Your task to perform on an android device: turn off location history Image 0: 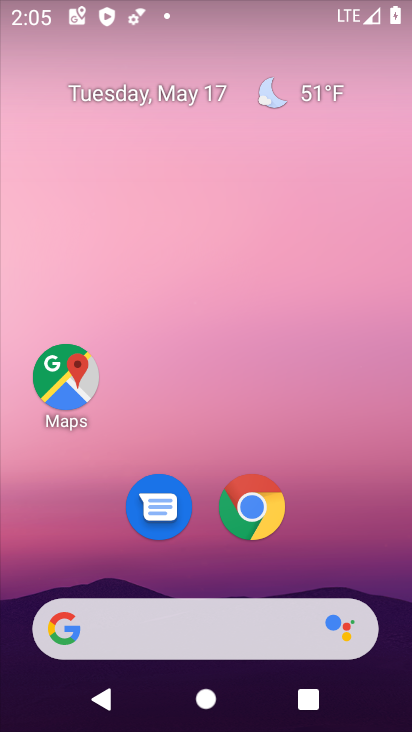
Step 0: drag from (306, 559) to (355, 26)
Your task to perform on an android device: turn off location history Image 1: 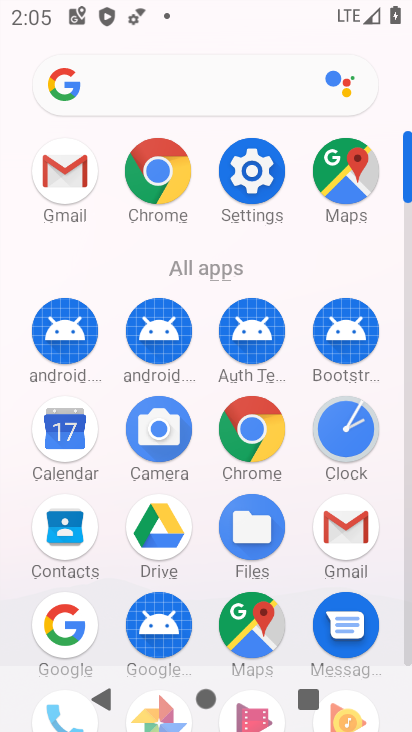
Step 1: click (254, 165)
Your task to perform on an android device: turn off location history Image 2: 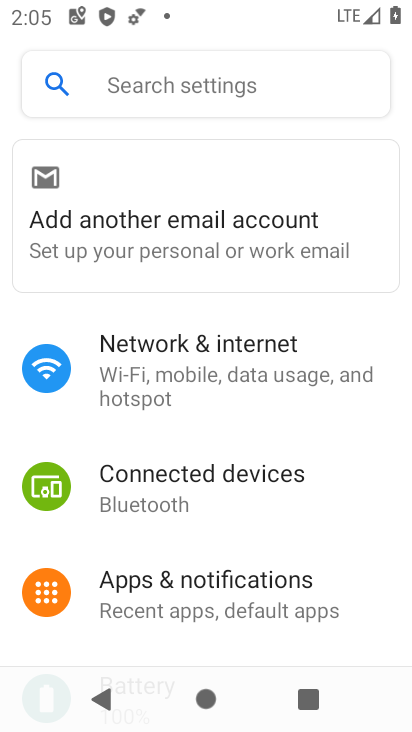
Step 2: drag from (220, 567) to (279, 296)
Your task to perform on an android device: turn off location history Image 3: 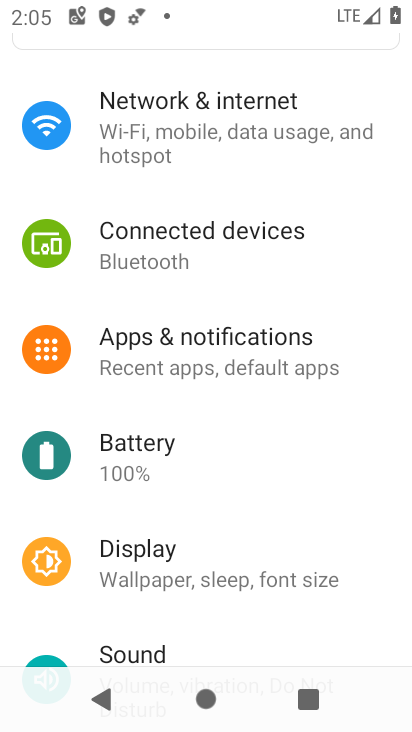
Step 3: drag from (230, 466) to (226, 135)
Your task to perform on an android device: turn off location history Image 4: 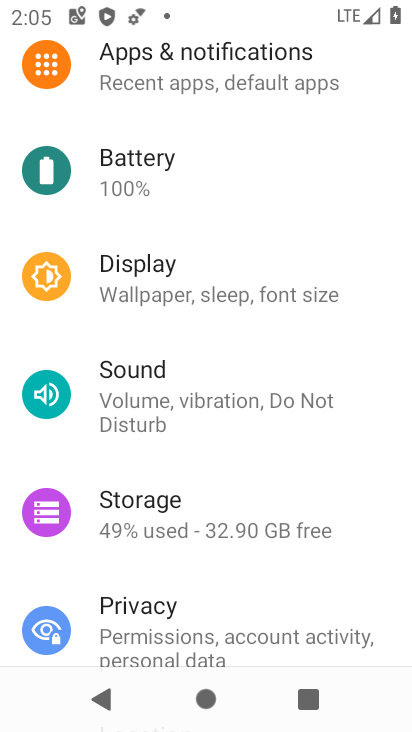
Step 4: drag from (217, 490) to (212, 283)
Your task to perform on an android device: turn off location history Image 5: 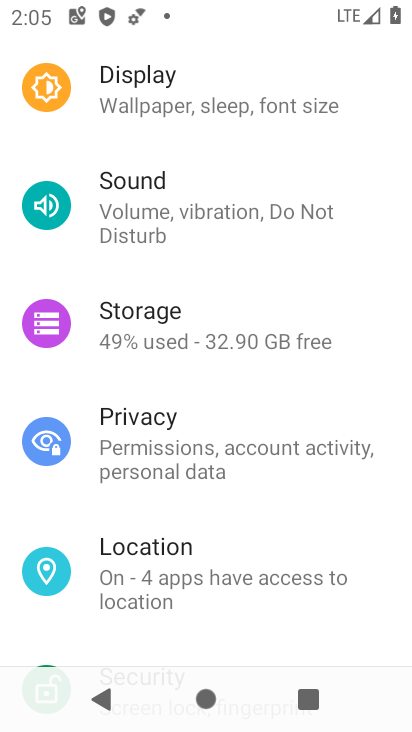
Step 5: click (215, 565)
Your task to perform on an android device: turn off location history Image 6: 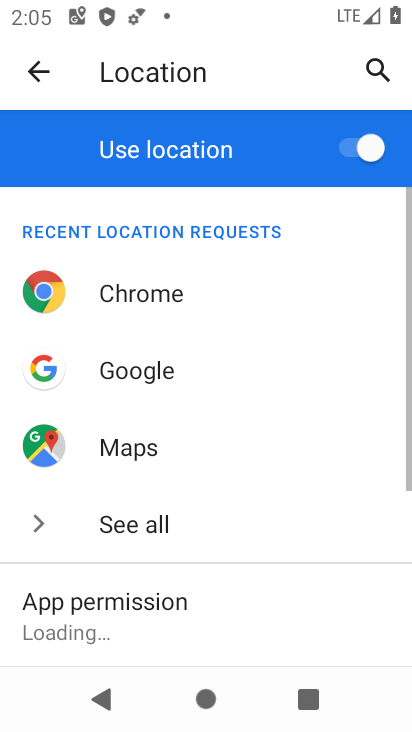
Step 6: drag from (221, 588) to (248, 327)
Your task to perform on an android device: turn off location history Image 7: 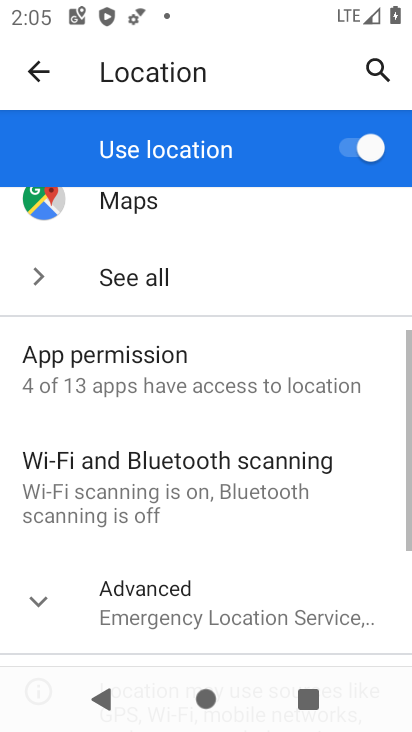
Step 7: click (221, 604)
Your task to perform on an android device: turn off location history Image 8: 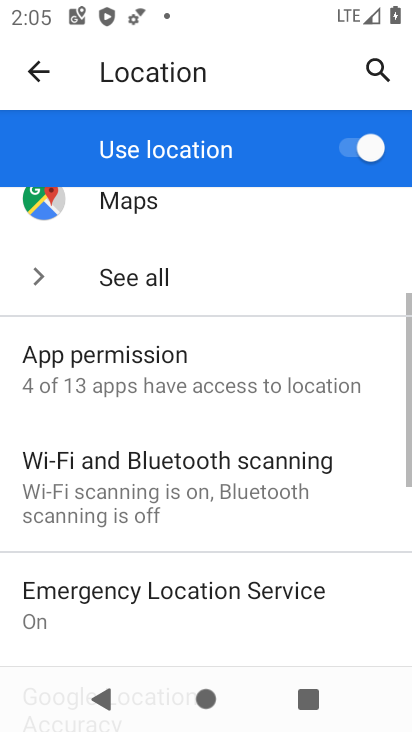
Step 8: drag from (219, 602) to (207, 399)
Your task to perform on an android device: turn off location history Image 9: 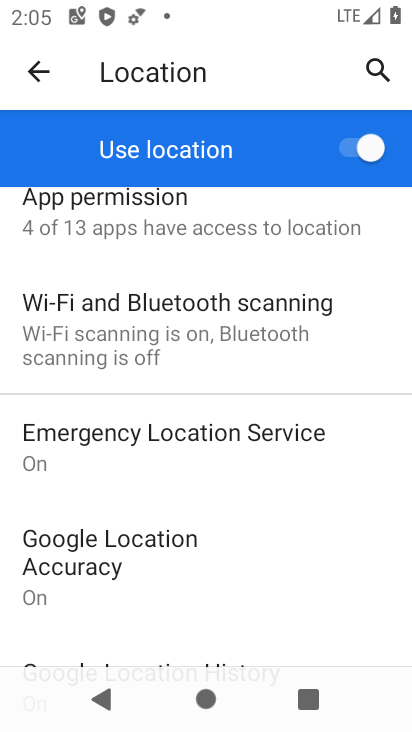
Step 9: drag from (170, 565) to (210, 351)
Your task to perform on an android device: turn off location history Image 10: 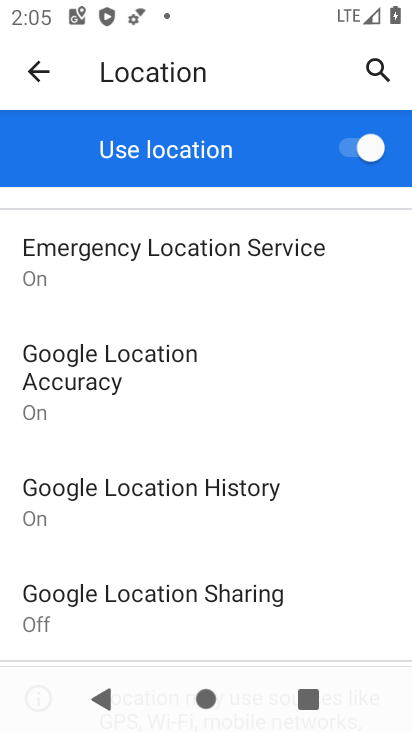
Step 10: click (228, 499)
Your task to perform on an android device: turn off location history Image 11: 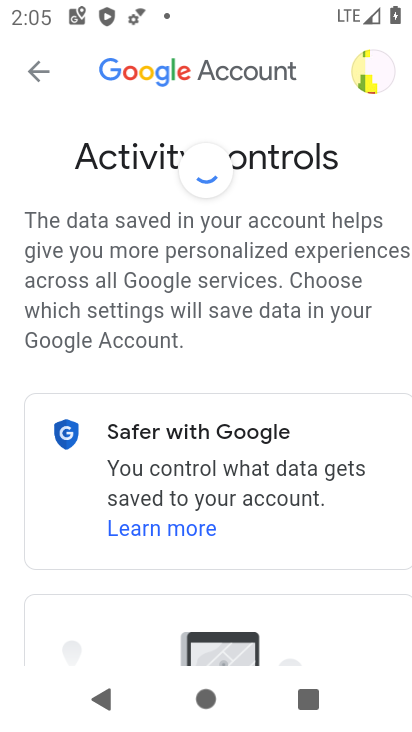
Step 11: task complete